Your task to perform on an android device: Go to Yahoo.com Image 0: 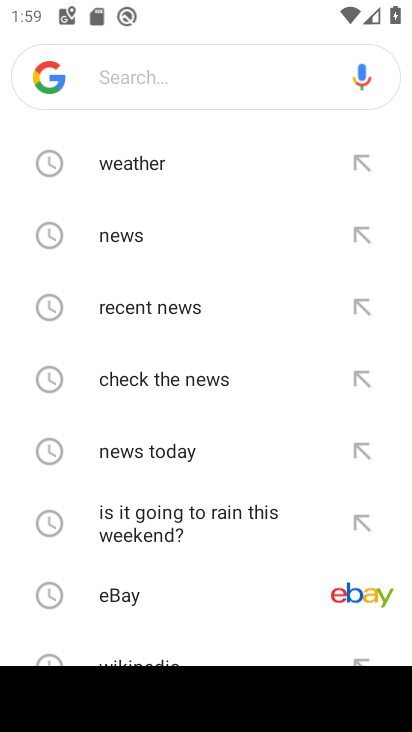
Step 0: press home button
Your task to perform on an android device: Go to Yahoo.com Image 1: 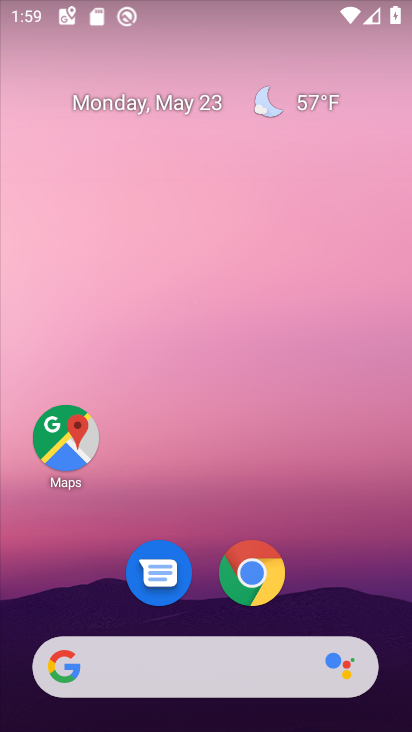
Step 1: click (259, 575)
Your task to perform on an android device: Go to Yahoo.com Image 2: 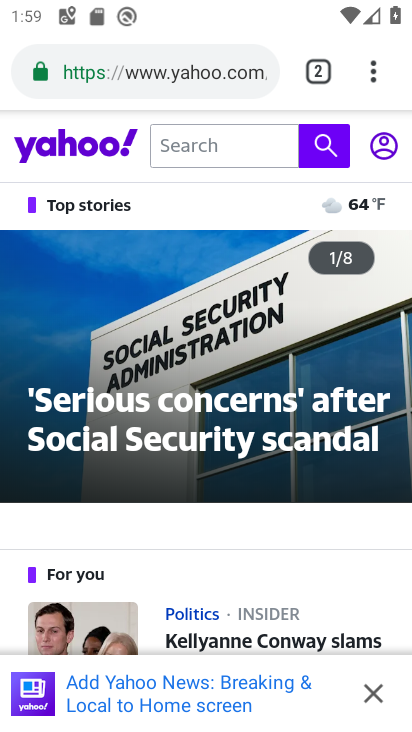
Step 2: task complete